Your task to perform on an android device: Open the calendar and show me this week's events? Image 0: 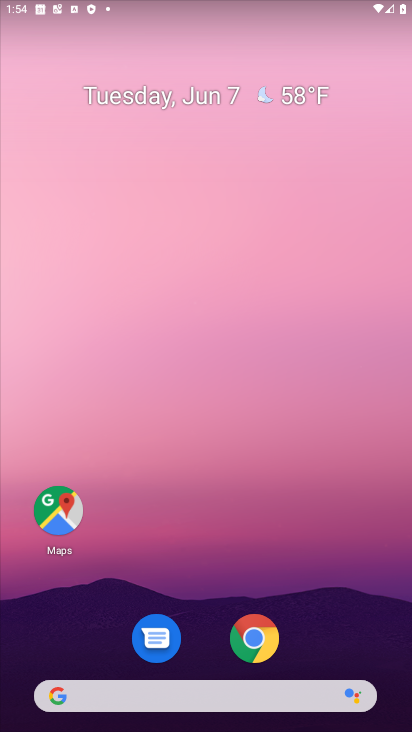
Step 0: drag from (192, 629) to (225, 250)
Your task to perform on an android device: Open the calendar and show me this week's events? Image 1: 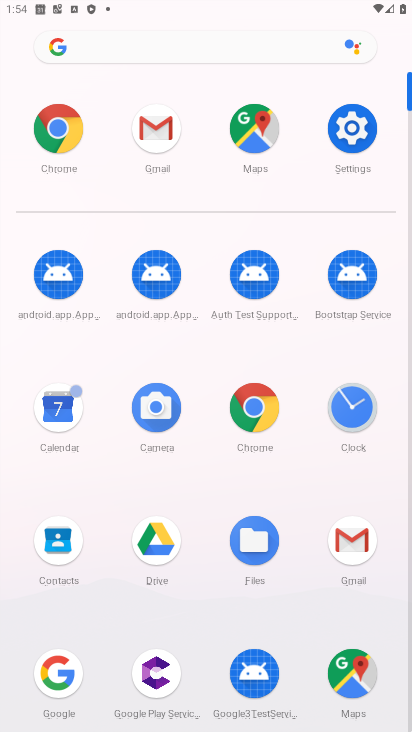
Step 1: click (56, 411)
Your task to perform on an android device: Open the calendar and show me this week's events? Image 2: 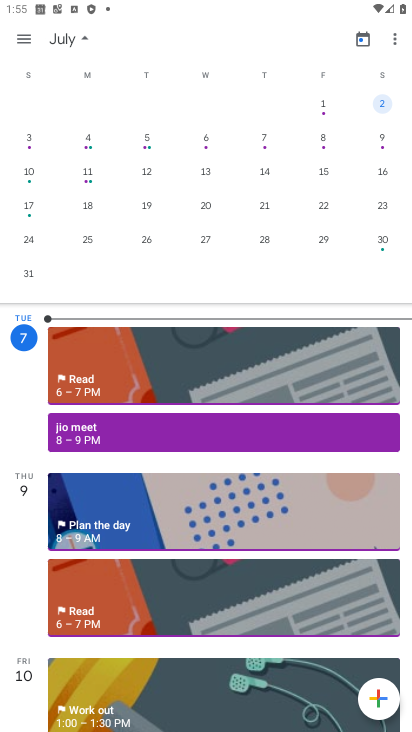
Step 2: drag from (62, 116) to (393, 104)
Your task to perform on an android device: Open the calendar and show me this week's events? Image 3: 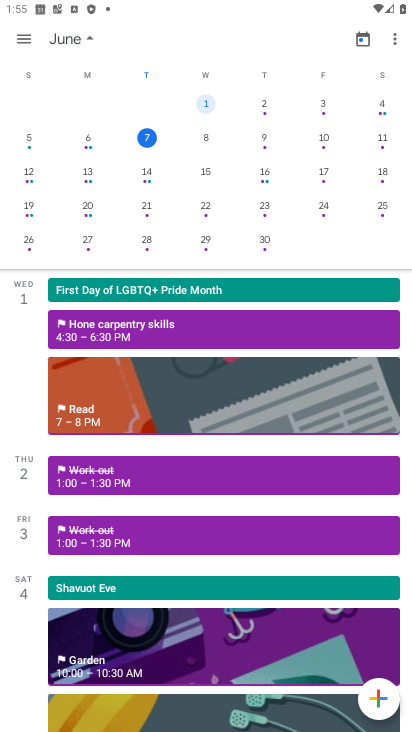
Step 3: click (199, 140)
Your task to perform on an android device: Open the calendar and show me this week's events? Image 4: 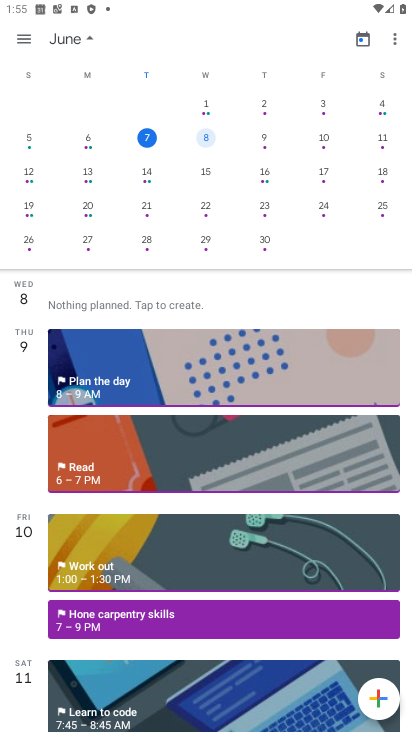
Step 4: click (17, 35)
Your task to perform on an android device: Open the calendar and show me this week's events? Image 5: 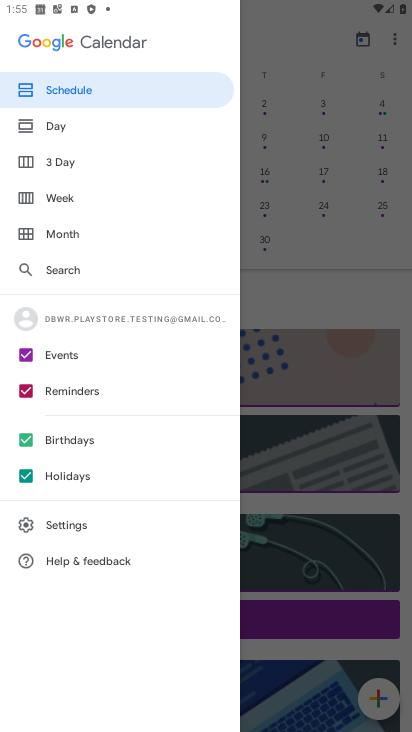
Step 5: click (85, 211)
Your task to perform on an android device: Open the calendar and show me this week's events? Image 6: 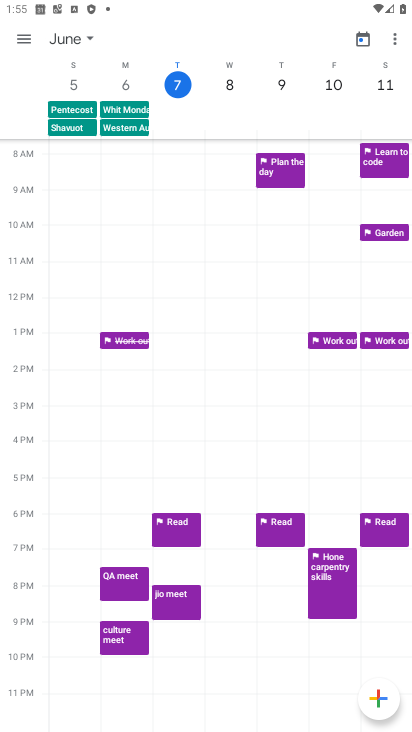
Step 6: task complete